Your task to perform on an android device: find photos in the google photos app Image 0: 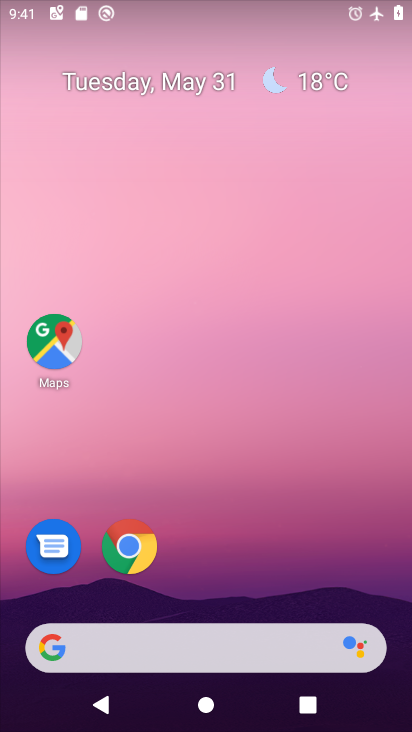
Step 0: drag from (179, 605) to (230, 110)
Your task to perform on an android device: find photos in the google photos app Image 1: 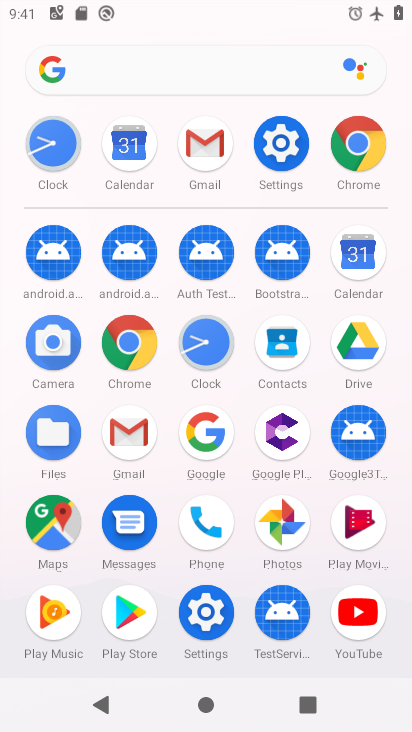
Step 1: click (287, 526)
Your task to perform on an android device: find photos in the google photos app Image 2: 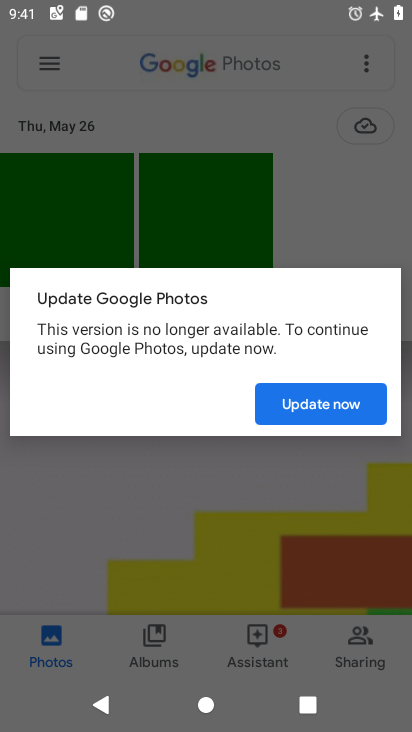
Step 2: click (331, 401)
Your task to perform on an android device: find photos in the google photos app Image 3: 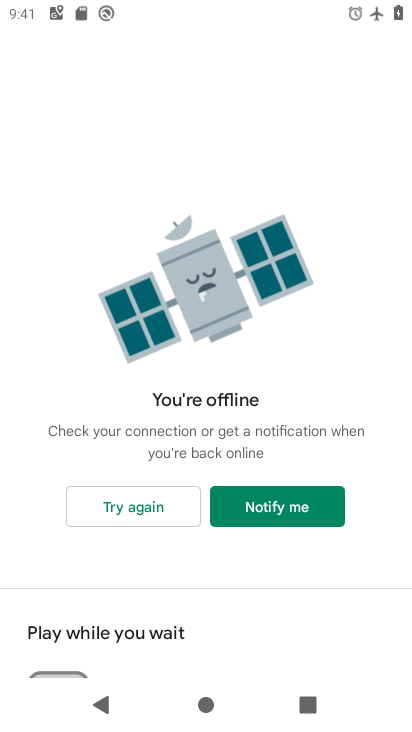
Step 3: task complete